Your task to perform on an android device: Open Reddit.com Image 0: 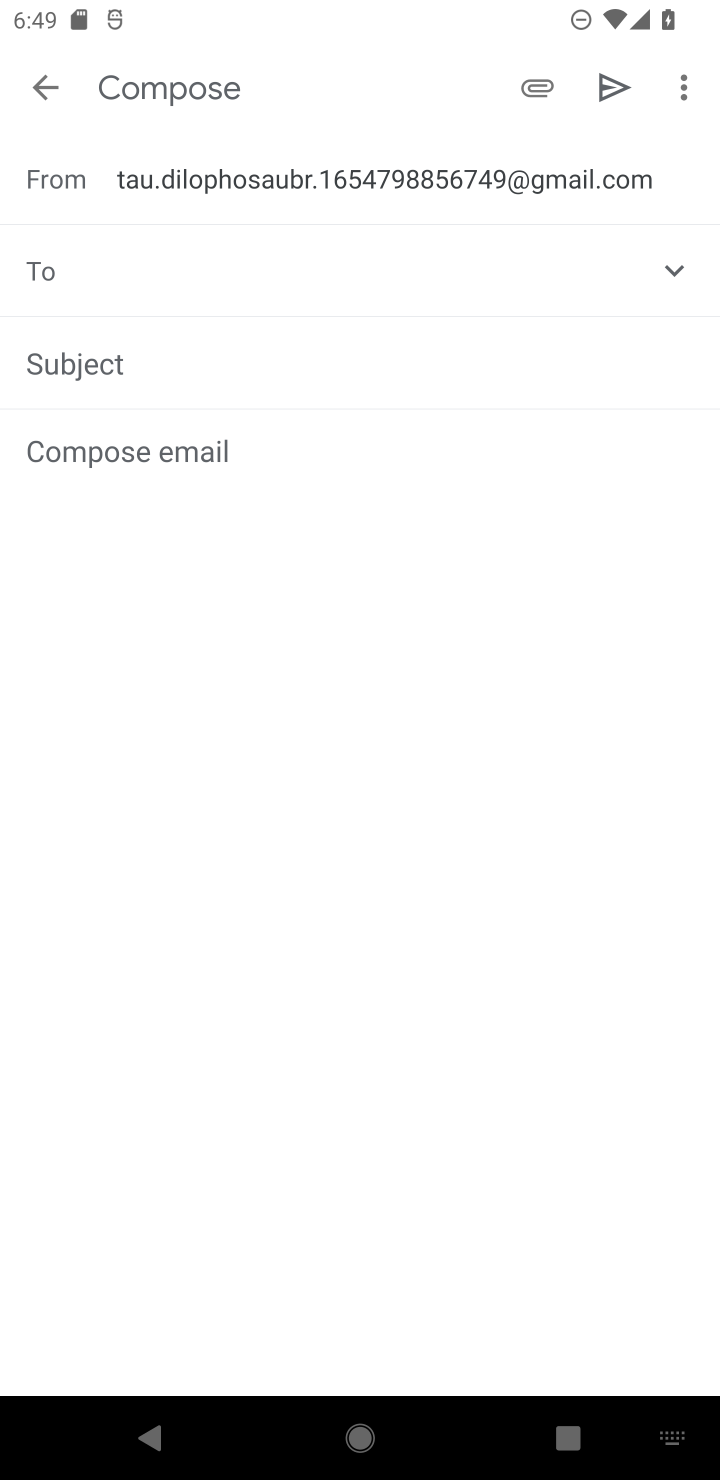
Step 0: press home button
Your task to perform on an android device: Open Reddit.com Image 1: 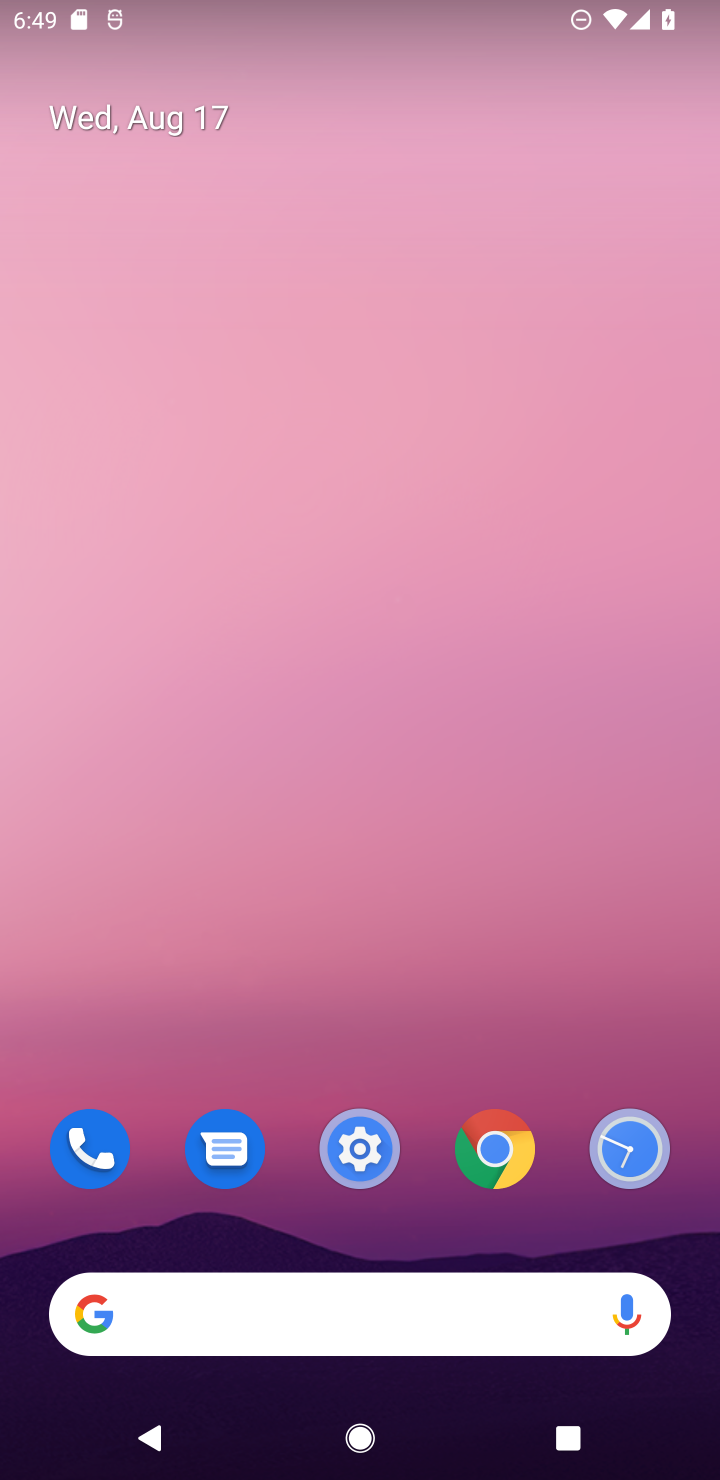
Step 1: click (370, 1301)
Your task to perform on an android device: Open Reddit.com Image 2: 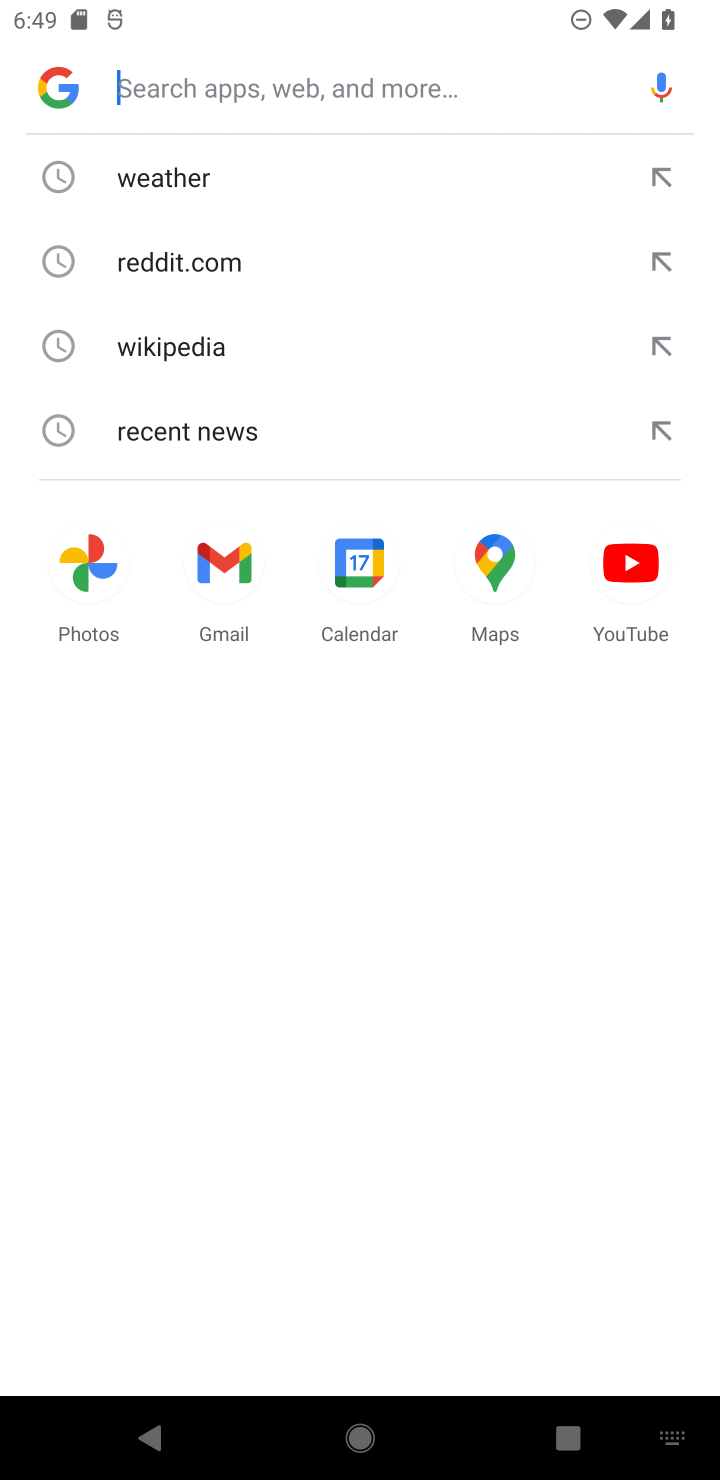
Step 2: click (152, 253)
Your task to perform on an android device: Open Reddit.com Image 3: 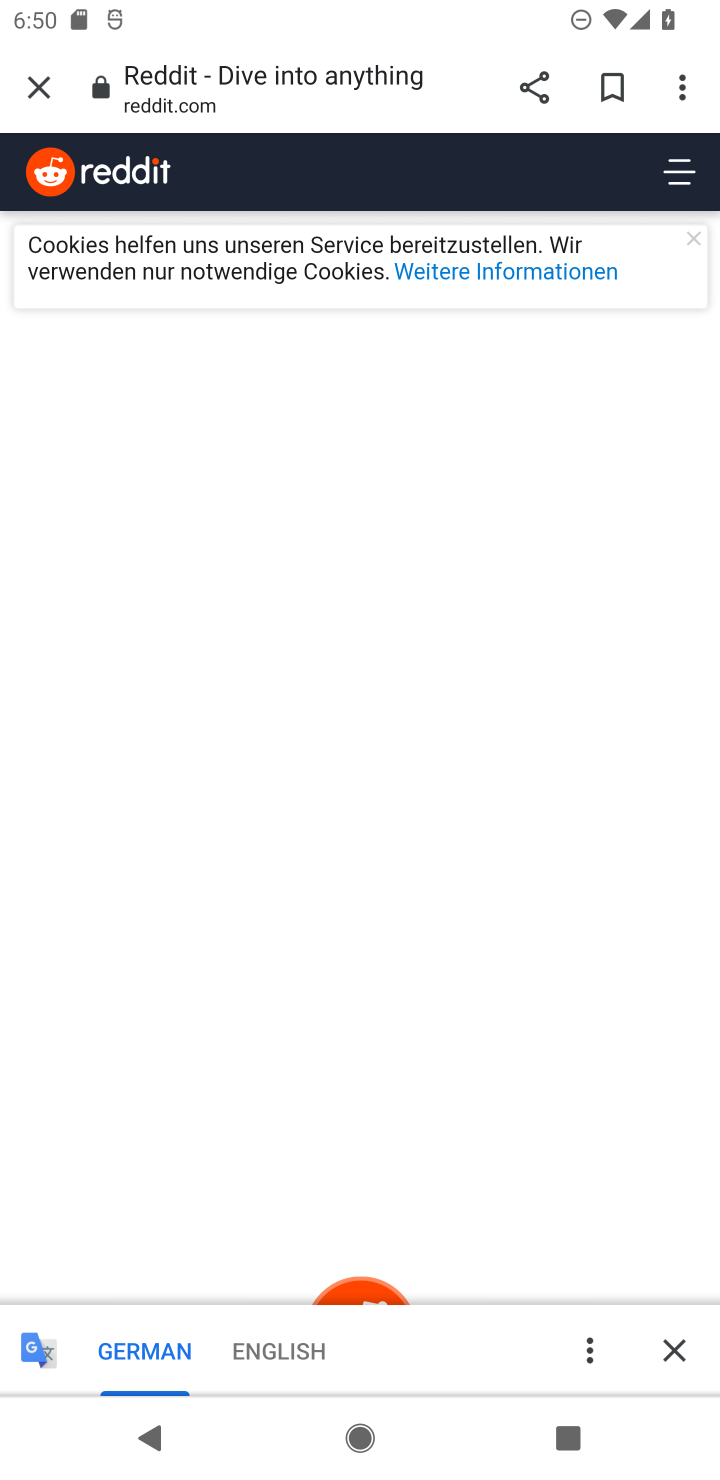
Step 3: click (689, 743)
Your task to perform on an android device: Open Reddit.com Image 4: 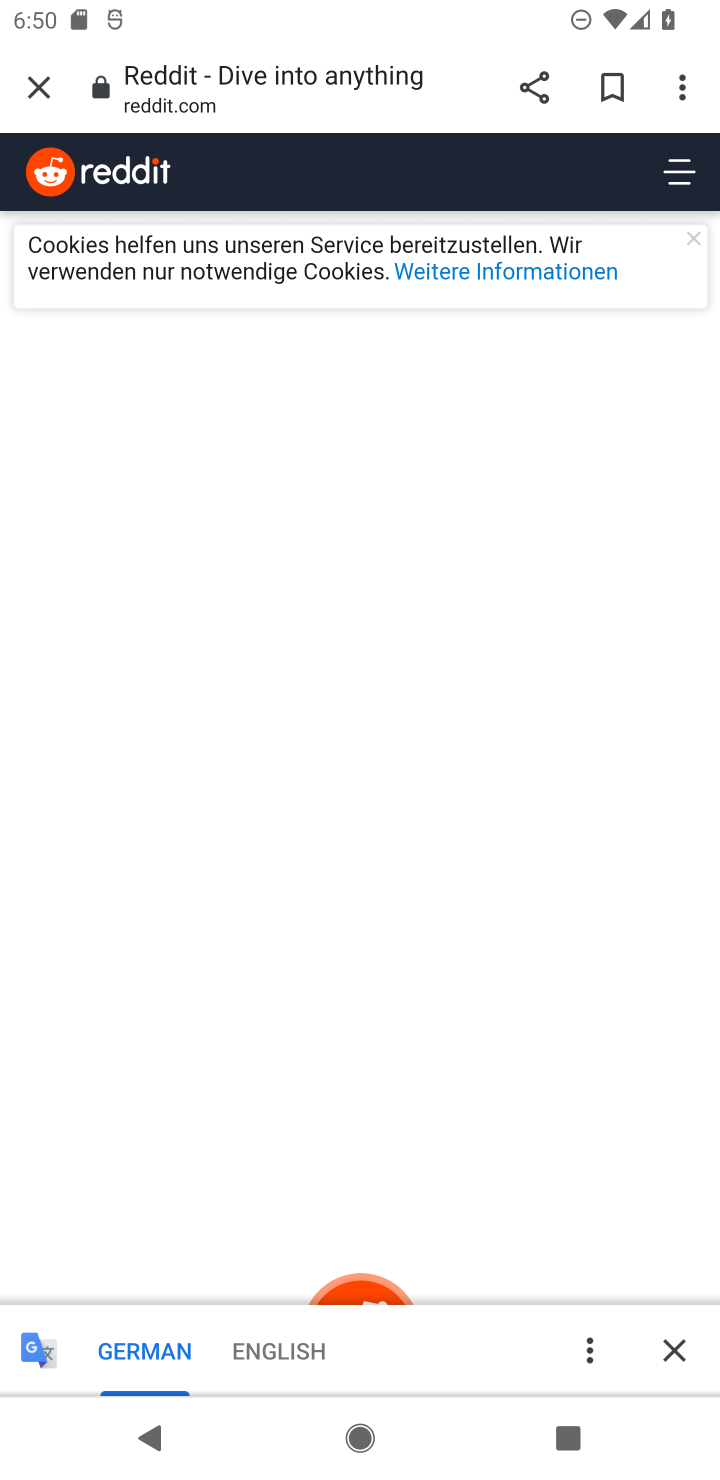
Step 4: task complete